Your task to perform on an android device: toggle airplane mode Image 0: 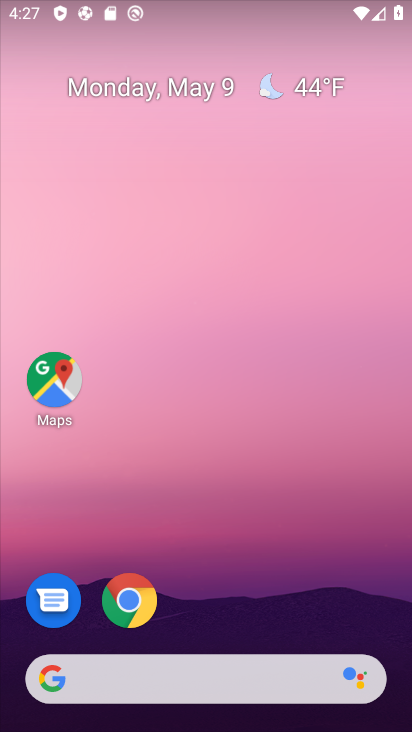
Step 0: drag from (289, 412) to (340, 41)
Your task to perform on an android device: toggle airplane mode Image 1: 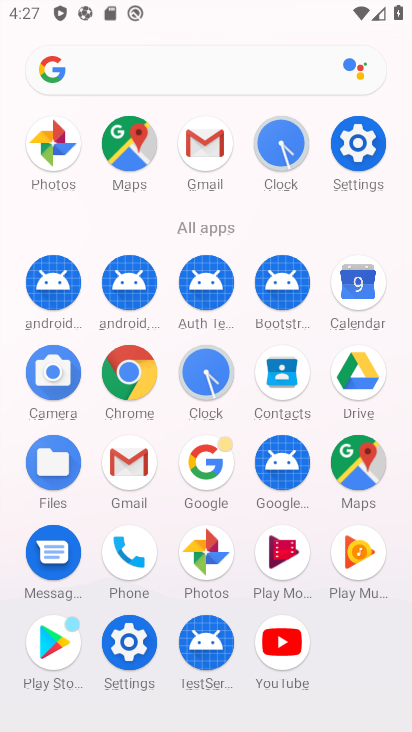
Step 1: click (352, 131)
Your task to perform on an android device: toggle airplane mode Image 2: 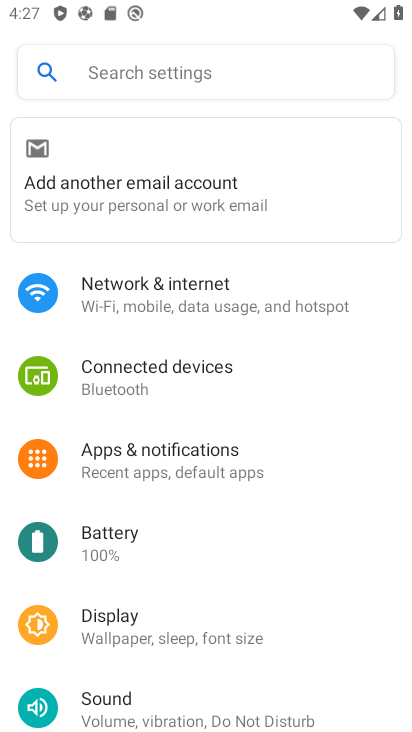
Step 2: click (214, 299)
Your task to perform on an android device: toggle airplane mode Image 3: 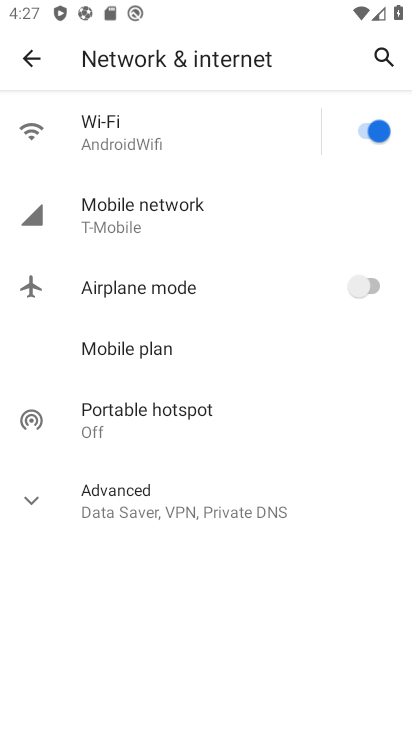
Step 3: click (360, 276)
Your task to perform on an android device: toggle airplane mode Image 4: 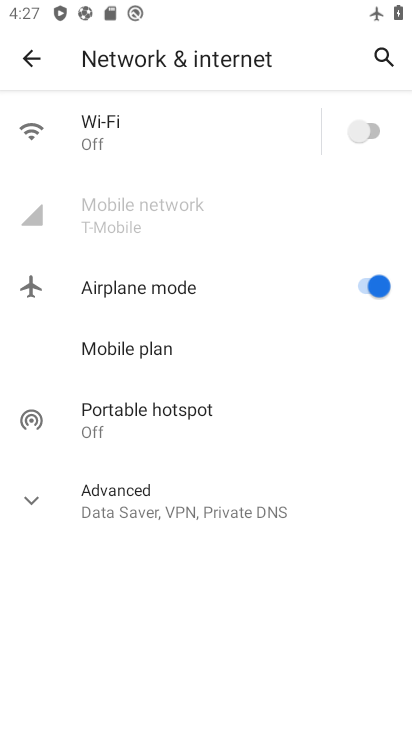
Step 4: task complete